Your task to perform on an android device: What's the weather going to be this weekend? Image 0: 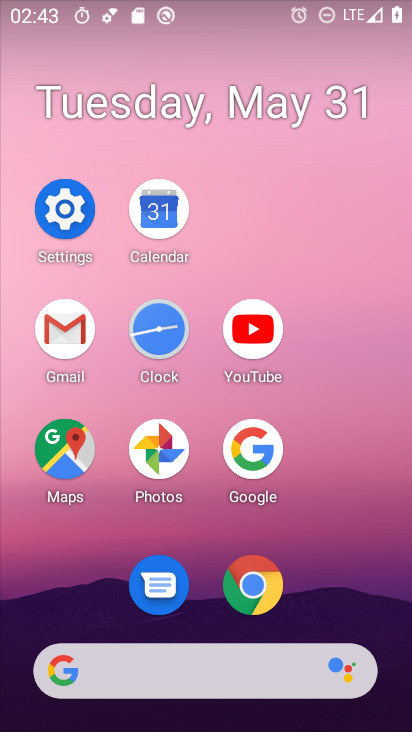
Step 0: click (250, 438)
Your task to perform on an android device: What's the weather going to be this weekend? Image 1: 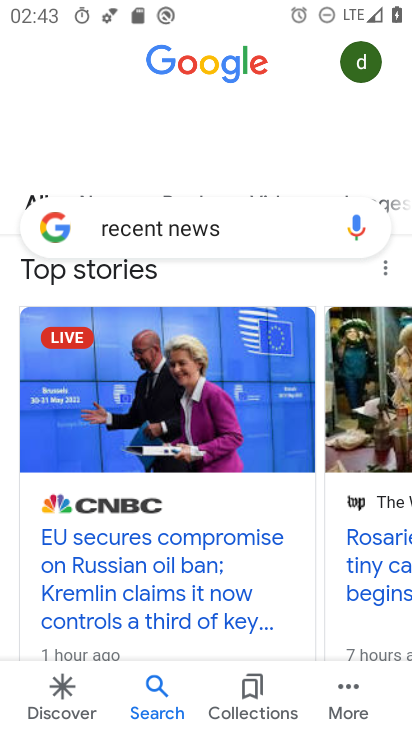
Step 1: click (258, 229)
Your task to perform on an android device: What's the weather going to be this weekend? Image 2: 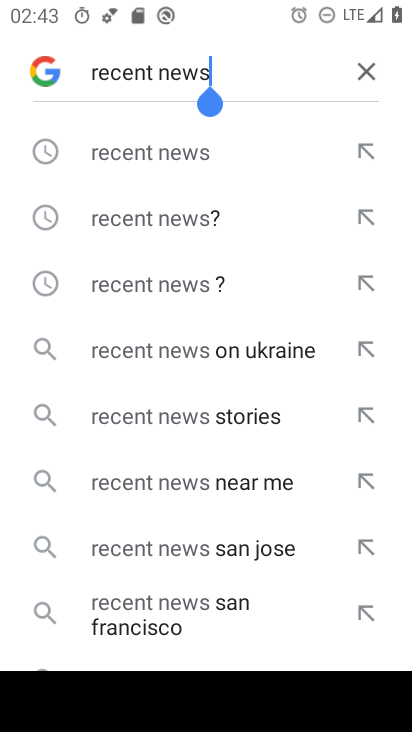
Step 2: click (372, 70)
Your task to perform on an android device: What's the weather going to be this weekend? Image 3: 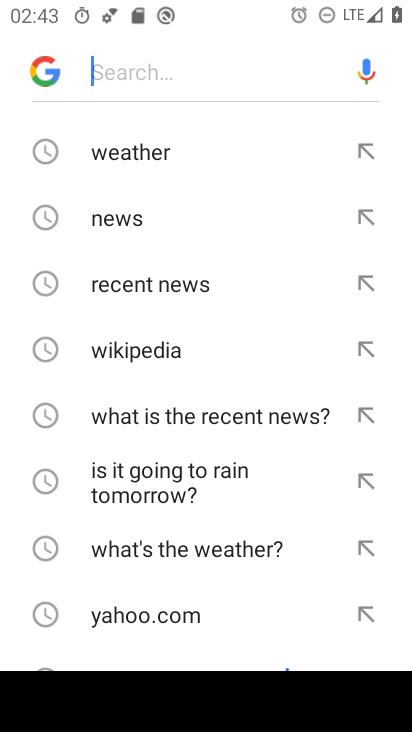
Step 3: click (155, 167)
Your task to perform on an android device: What's the weather going to be this weekend? Image 4: 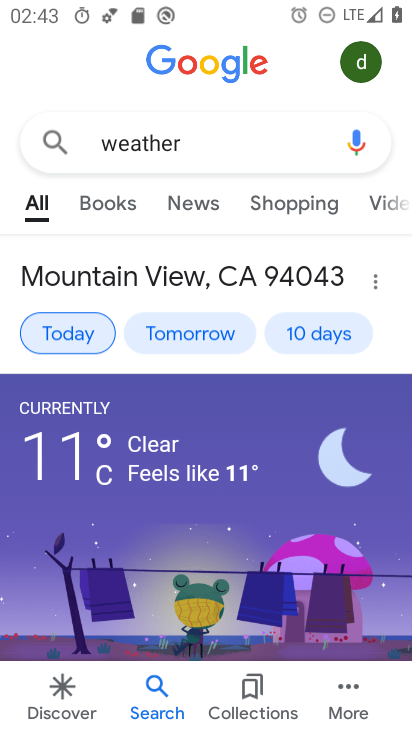
Step 4: click (307, 328)
Your task to perform on an android device: What's the weather going to be this weekend? Image 5: 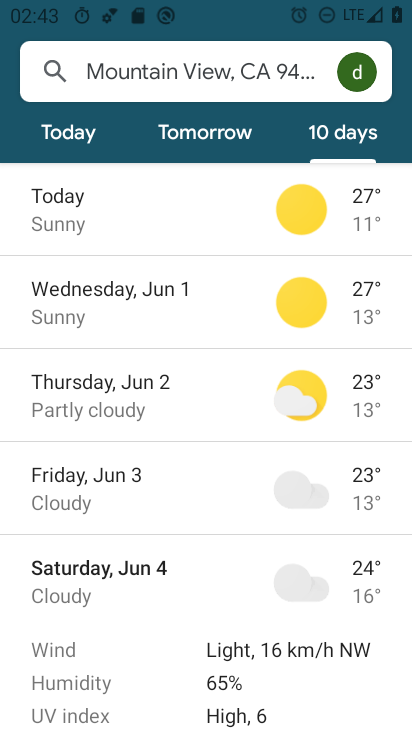
Step 5: task complete